Your task to perform on an android device: Open Amazon Image 0: 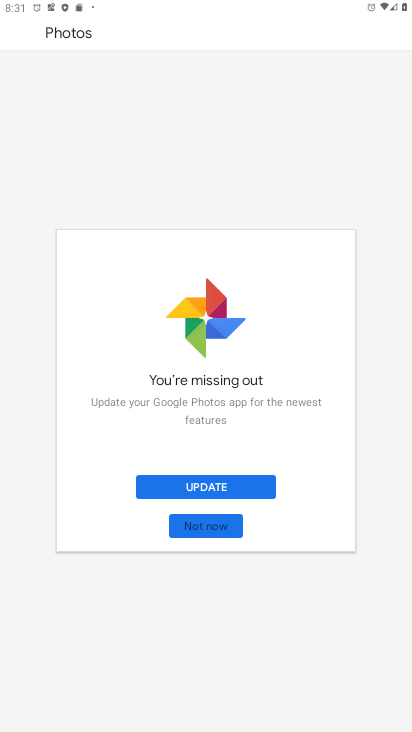
Step 0: press home button
Your task to perform on an android device: Open Amazon Image 1: 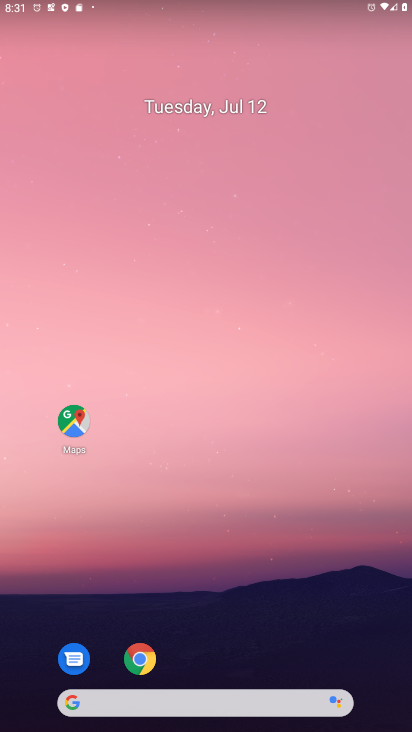
Step 1: click (139, 659)
Your task to perform on an android device: Open Amazon Image 2: 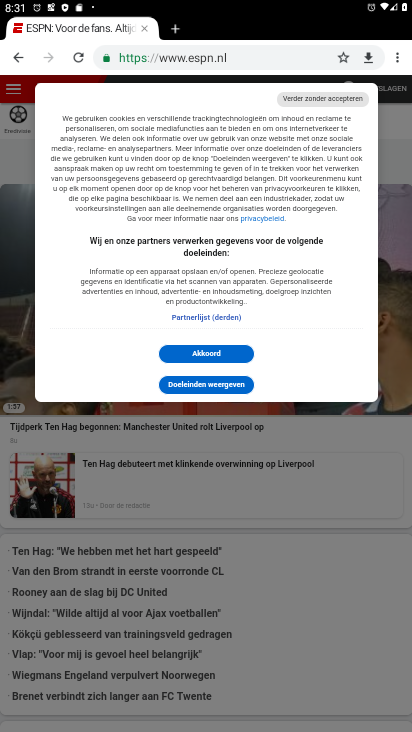
Step 2: click (280, 53)
Your task to perform on an android device: Open Amazon Image 3: 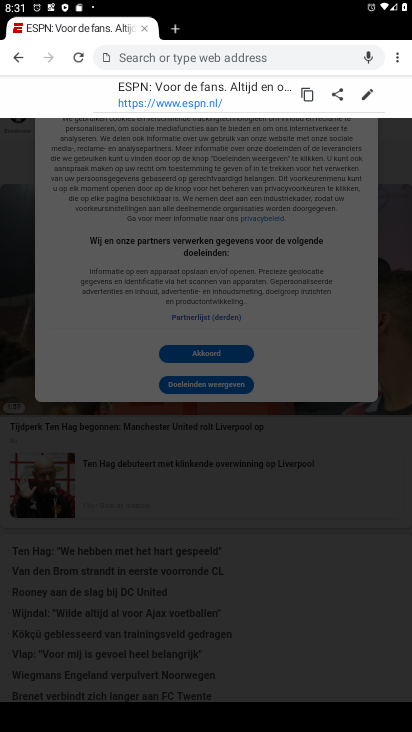
Step 3: type "Amazon"
Your task to perform on an android device: Open Amazon Image 4: 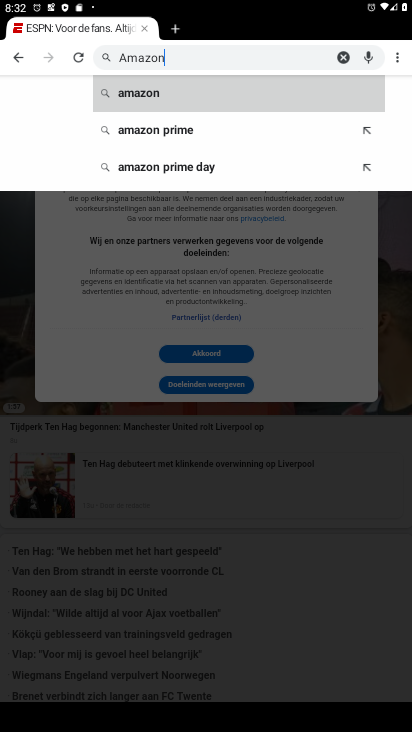
Step 4: type ""
Your task to perform on an android device: Open Amazon Image 5: 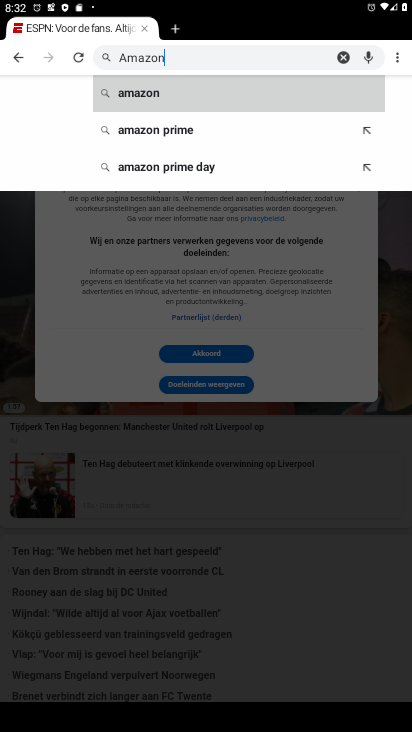
Step 5: click (136, 88)
Your task to perform on an android device: Open Amazon Image 6: 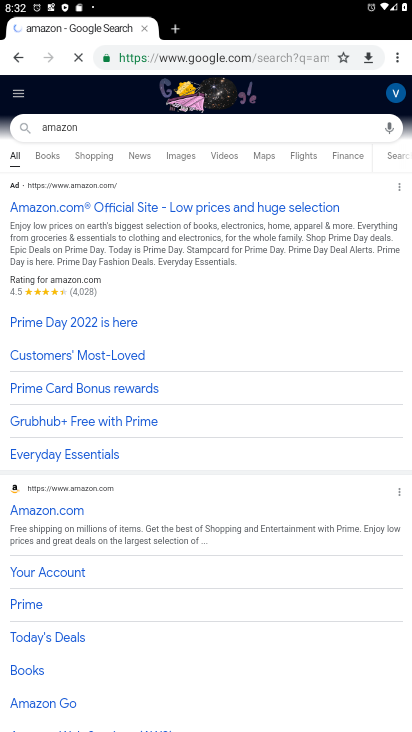
Step 6: click (59, 516)
Your task to perform on an android device: Open Amazon Image 7: 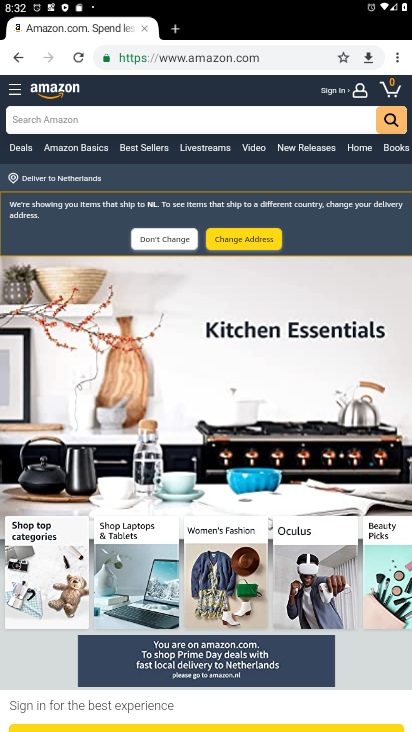
Step 7: task complete